Your task to perform on an android device: empty trash in the gmail app Image 0: 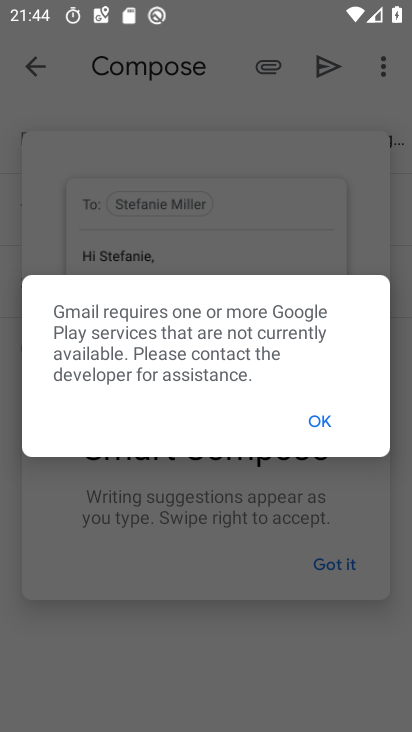
Step 0: press home button
Your task to perform on an android device: empty trash in the gmail app Image 1: 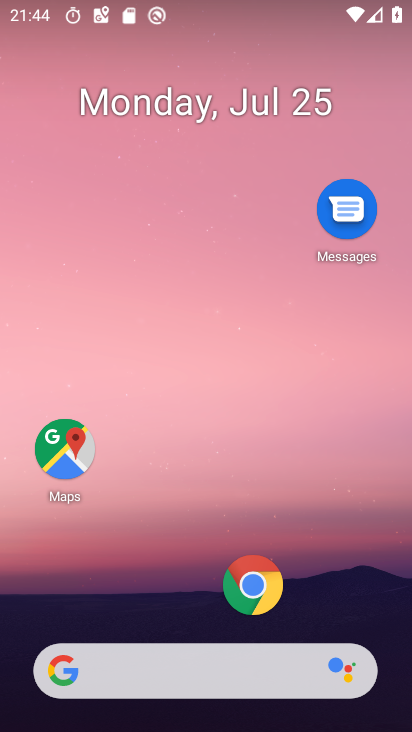
Step 1: drag from (183, 680) to (266, 178)
Your task to perform on an android device: empty trash in the gmail app Image 2: 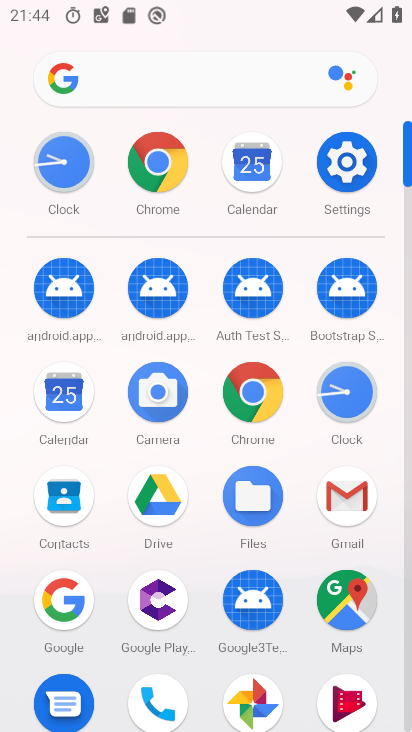
Step 2: click (345, 501)
Your task to perform on an android device: empty trash in the gmail app Image 3: 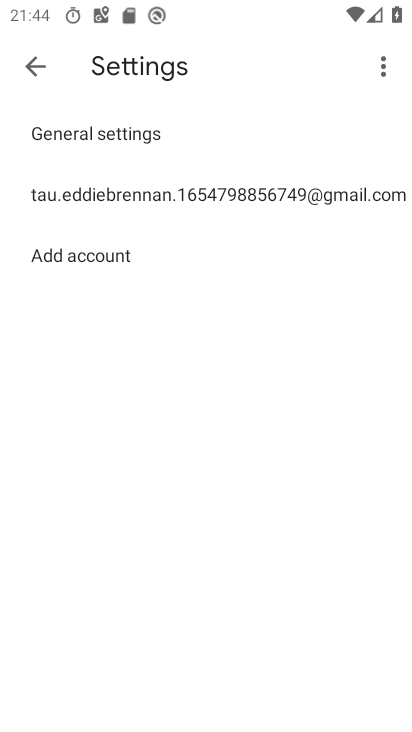
Step 3: click (31, 63)
Your task to perform on an android device: empty trash in the gmail app Image 4: 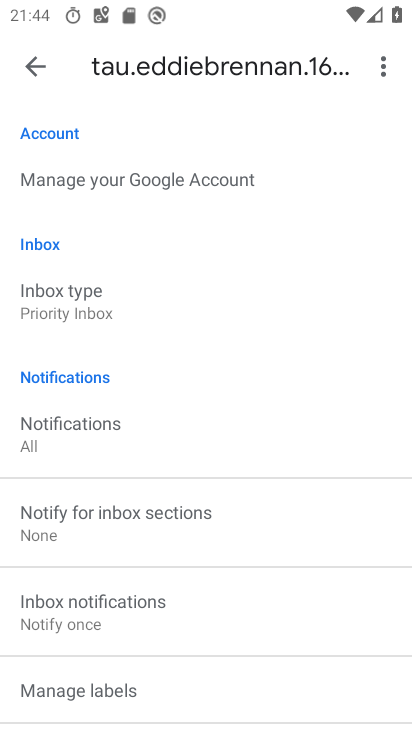
Step 4: click (35, 65)
Your task to perform on an android device: empty trash in the gmail app Image 5: 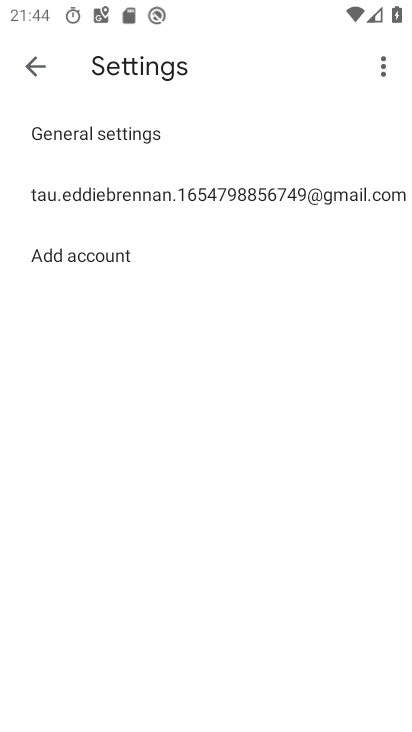
Step 5: click (36, 69)
Your task to perform on an android device: empty trash in the gmail app Image 6: 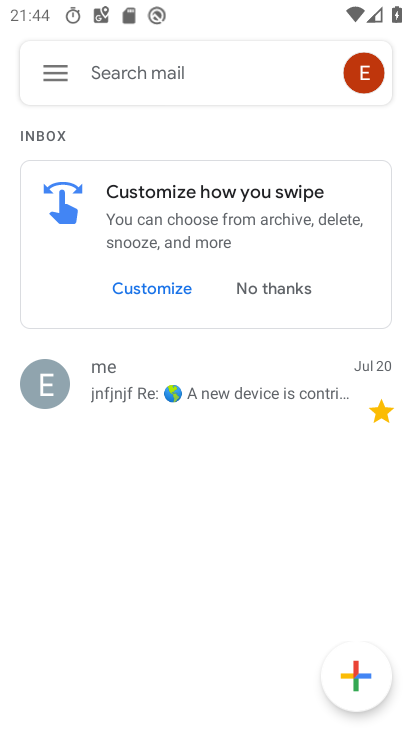
Step 6: click (48, 74)
Your task to perform on an android device: empty trash in the gmail app Image 7: 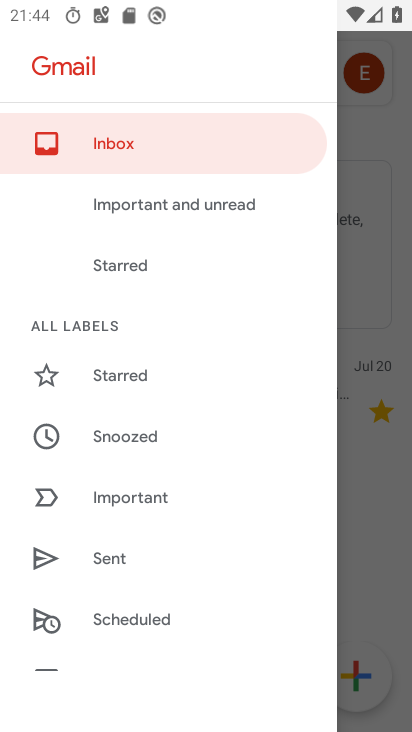
Step 7: drag from (187, 578) to (225, 237)
Your task to perform on an android device: empty trash in the gmail app Image 8: 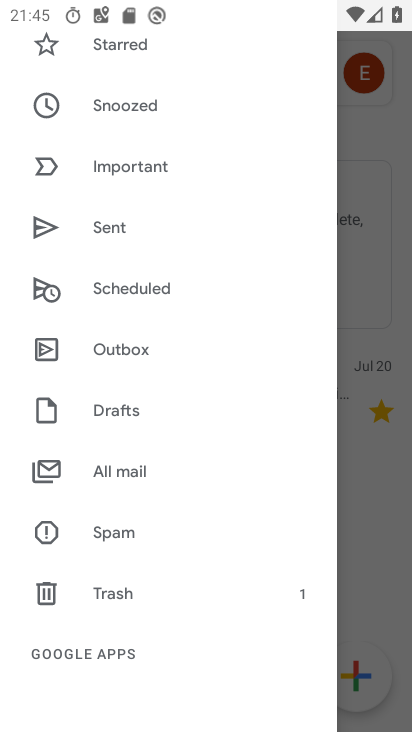
Step 8: click (116, 593)
Your task to perform on an android device: empty trash in the gmail app Image 9: 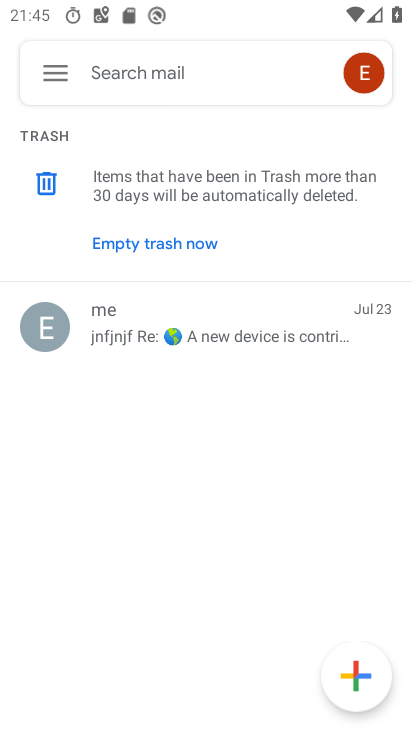
Step 9: click (135, 244)
Your task to perform on an android device: empty trash in the gmail app Image 10: 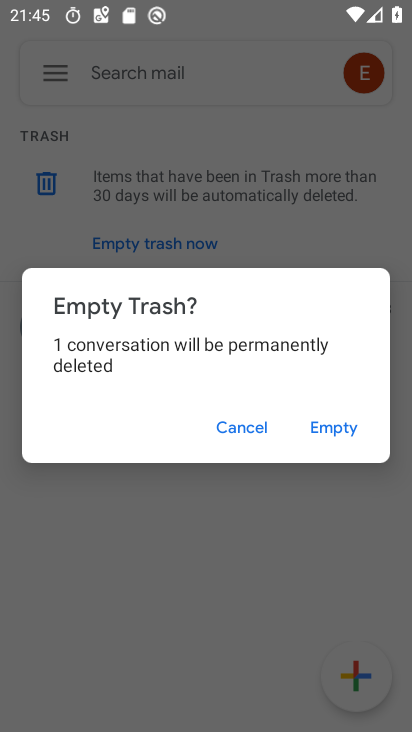
Step 10: click (321, 425)
Your task to perform on an android device: empty trash in the gmail app Image 11: 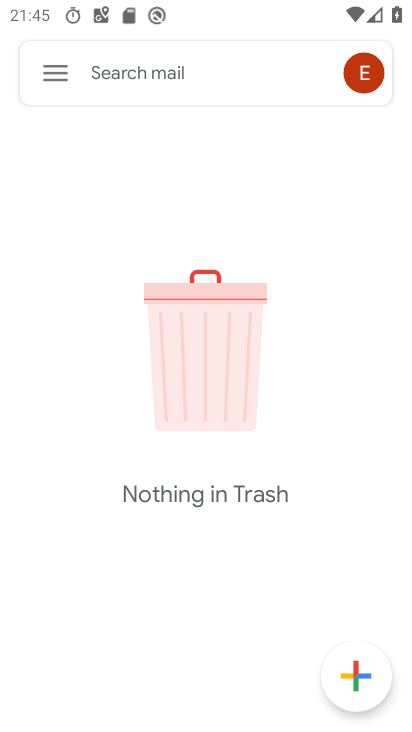
Step 11: task complete